Your task to perform on an android device: toggle location history Image 0: 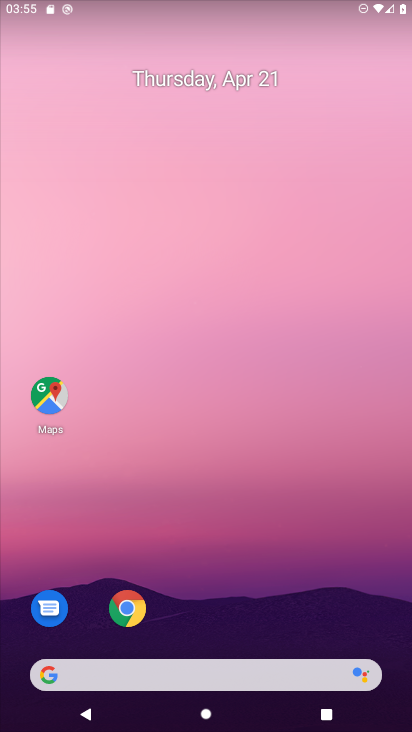
Step 0: drag from (199, 619) to (217, 217)
Your task to perform on an android device: toggle location history Image 1: 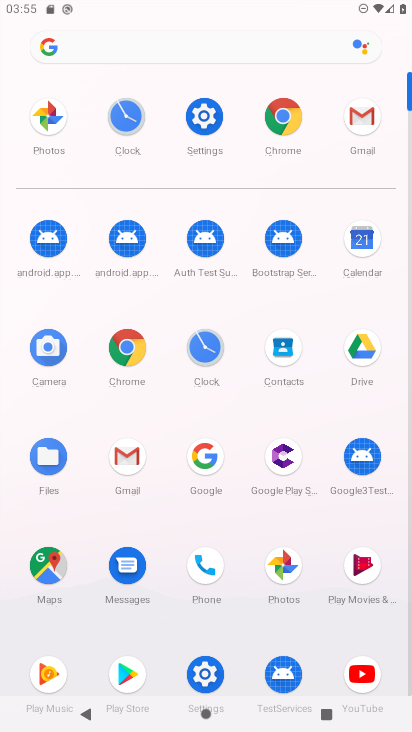
Step 1: click (201, 116)
Your task to perform on an android device: toggle location history Image 2: 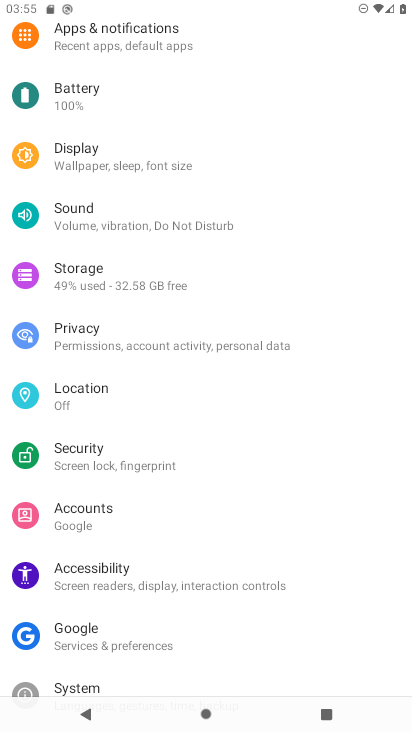
Step 2: click (93, 404)
Your task to perform on an android device: toggle location history Image 3: 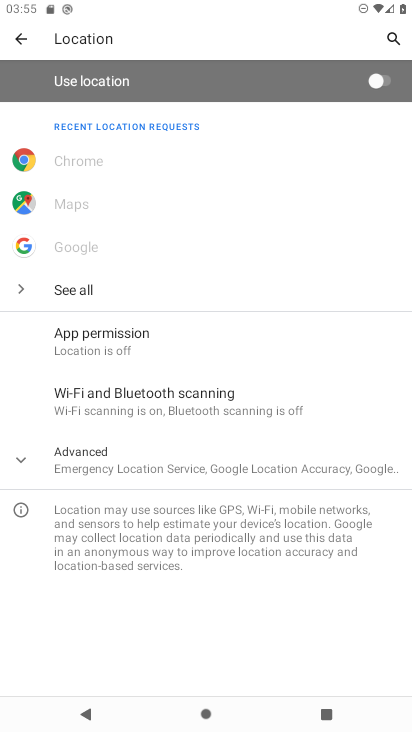
Step 3: click (122, 457)
Your task to perform on an android device: toggle location history Image 4: 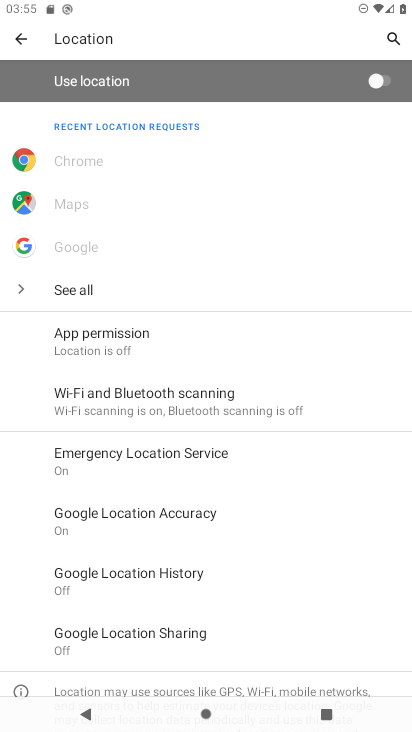
Step 4: click (180, 580)
Your task to perform on an android device: toggle location history Image 5: 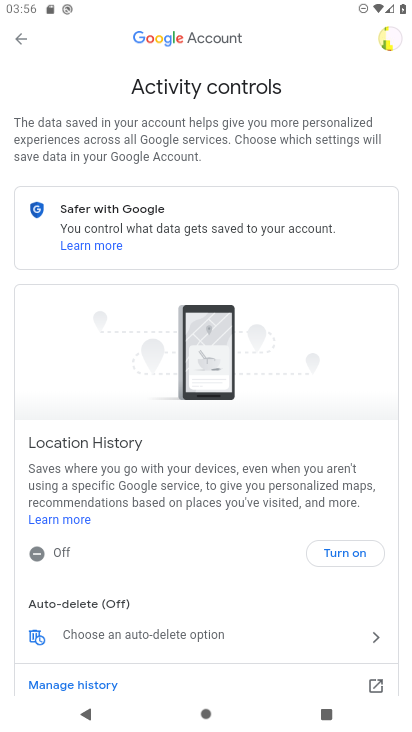
Step 5: click (321, 550)
Your task to perform on an android device: toggle location history Image 6: 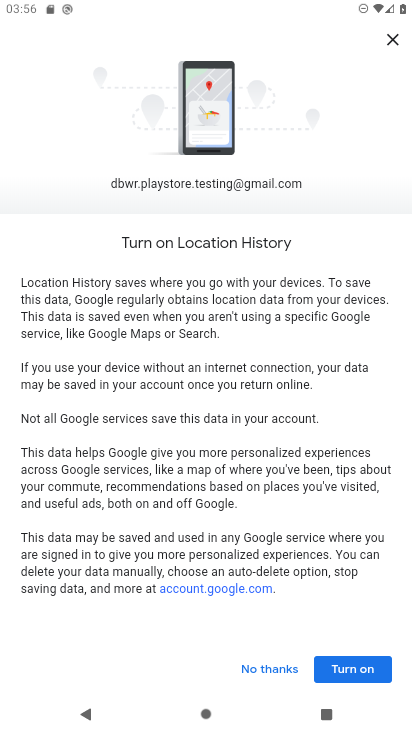
Step 6: click (250, 668)
Your task to perform on an android device: toggle location history Image 7: 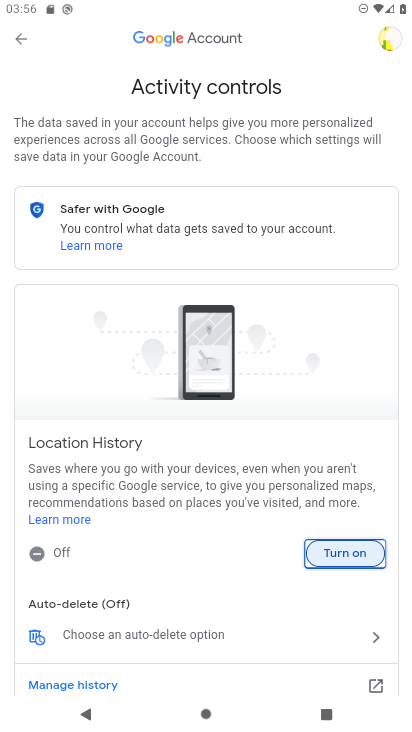
Step 7: task complete